Your task to perform on an android device: Is it going to rain this weekend? Image 0: 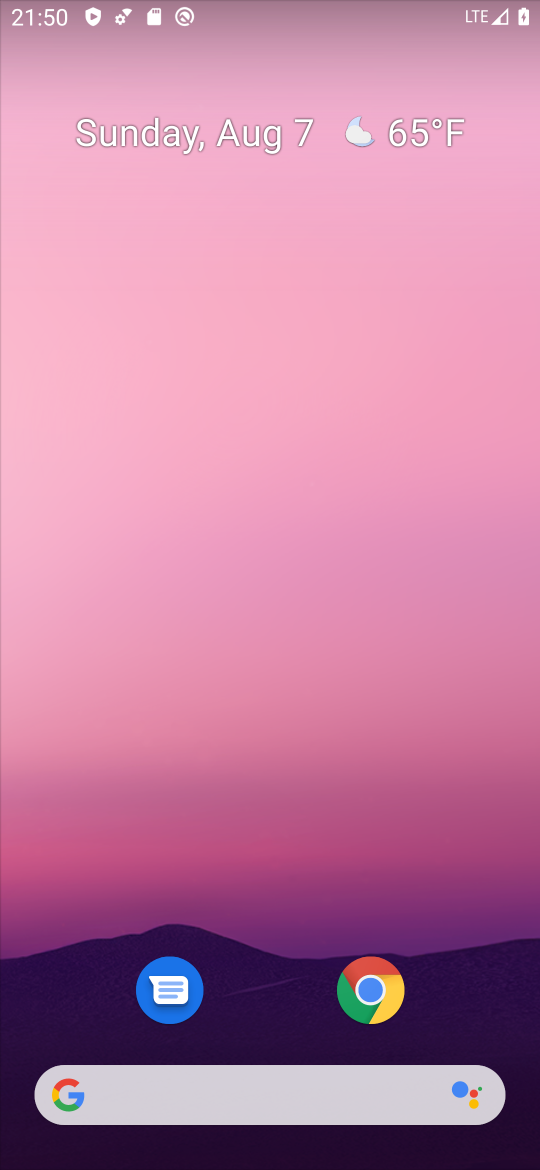
Step 0: click (258, 1098)
Your task to perform on an android device: Is it going to rain this weekend? Image 1: 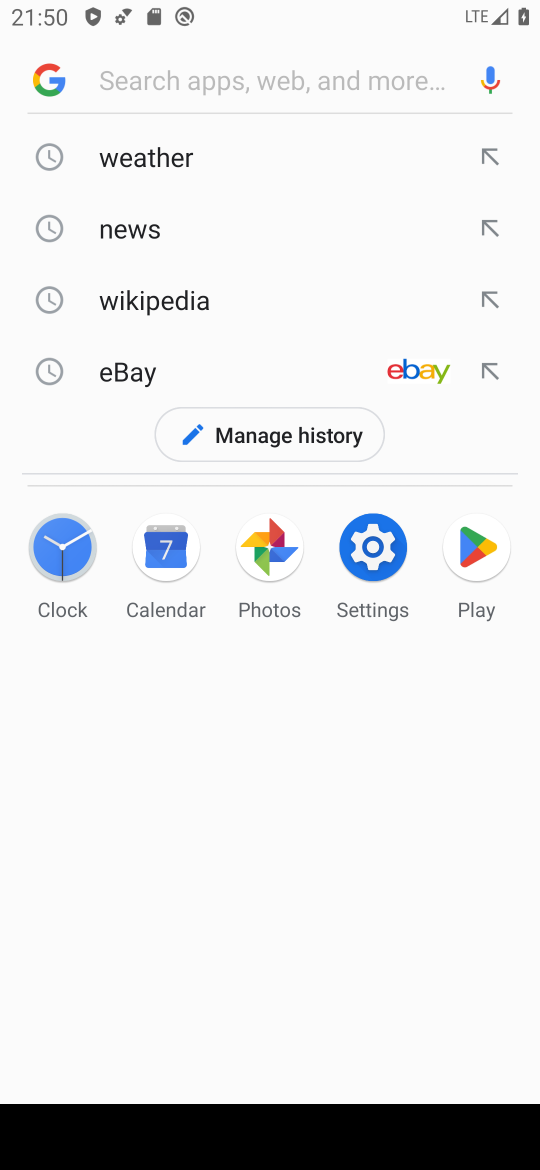
Step 1: click (297, 148)
Your task to perform on an android device: Is it going to rain this weekend? Image 2: 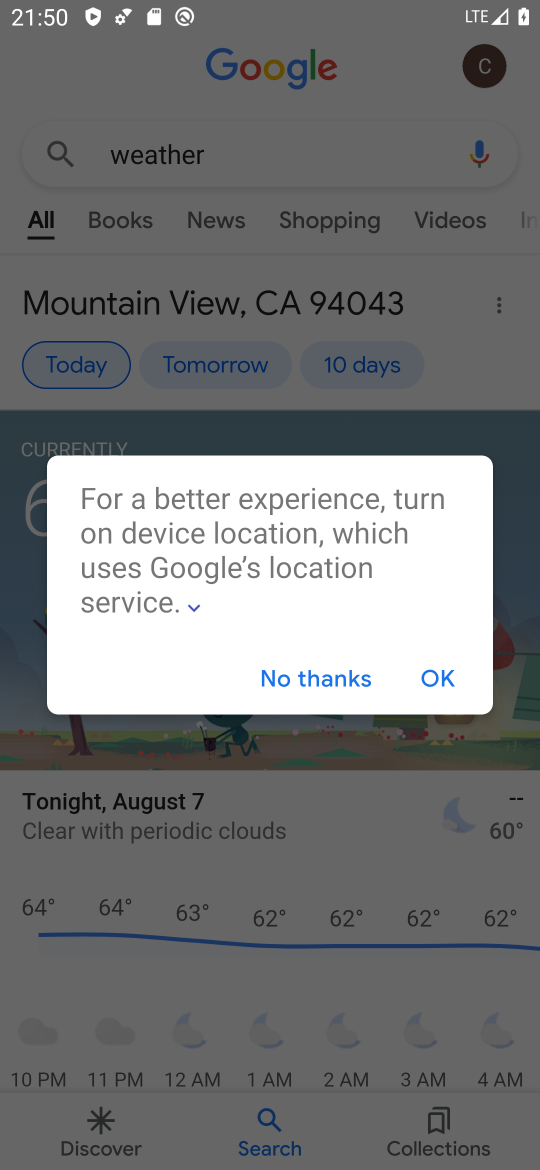
Step 2: click (353, 676)
Your task to perform on an android device: Is it going to rain this weekend? Image 3: 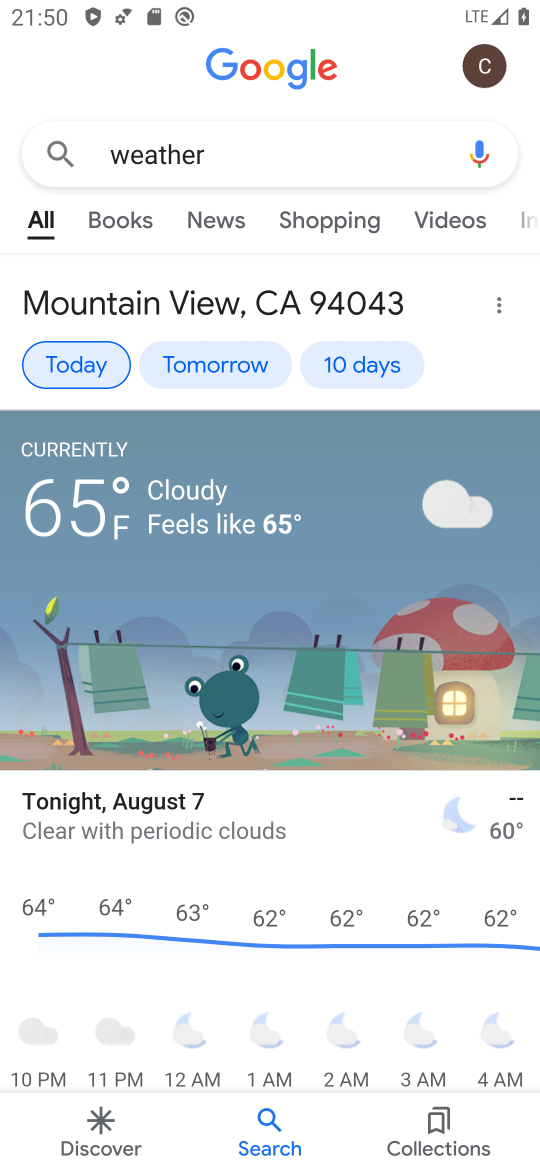
Step 3: click (365, 358)
Your task to perform on an android device: Is it going to rain this weekend? Image 4: 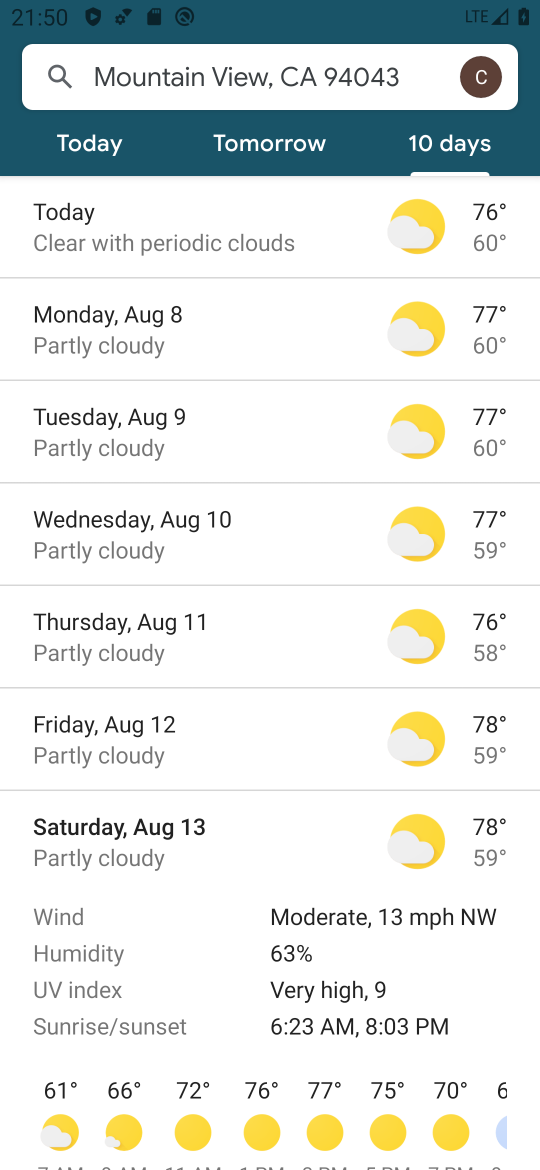
Step 4: task complete